Your task to perform on an android device: add a contact Image 0: 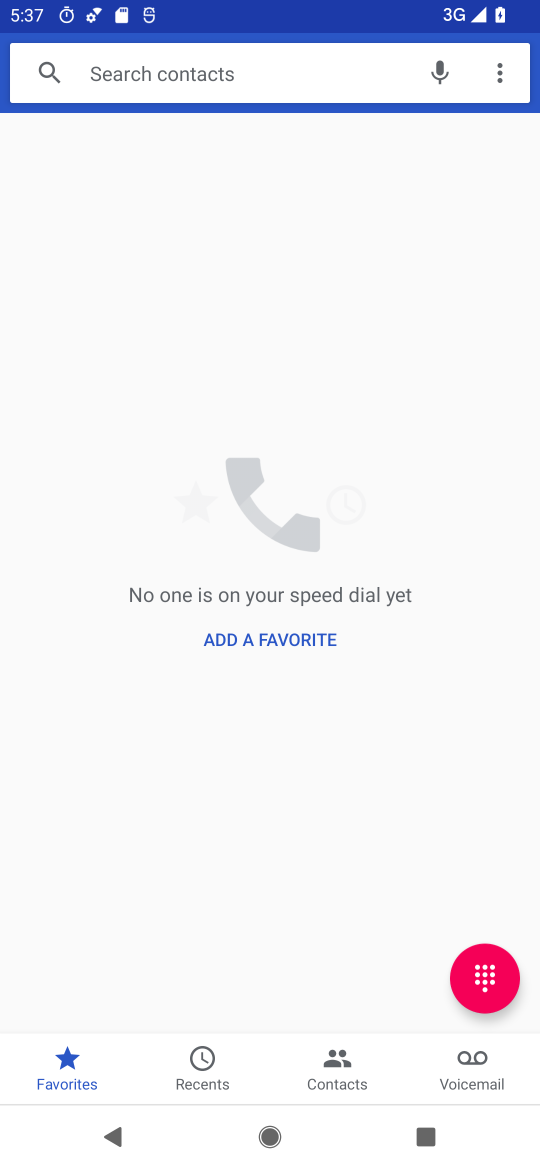
Step 0: press home button
Your task to perform on an android device: add a contact Image 1: 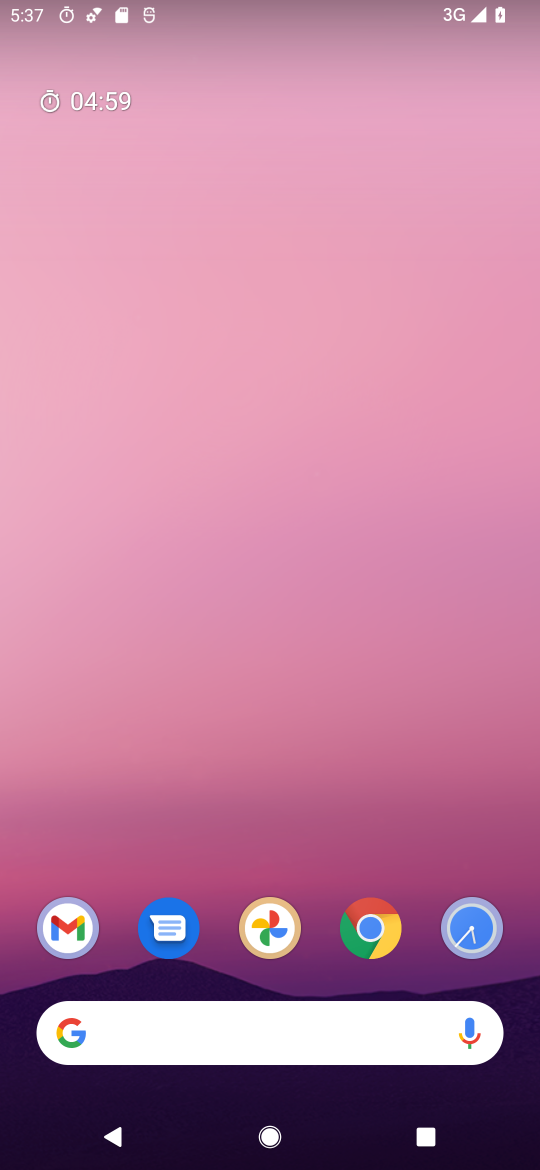
Step 1: drag from (273, 985) to (140, 56)
Your task to perform on an android device: add a contact Image 2: 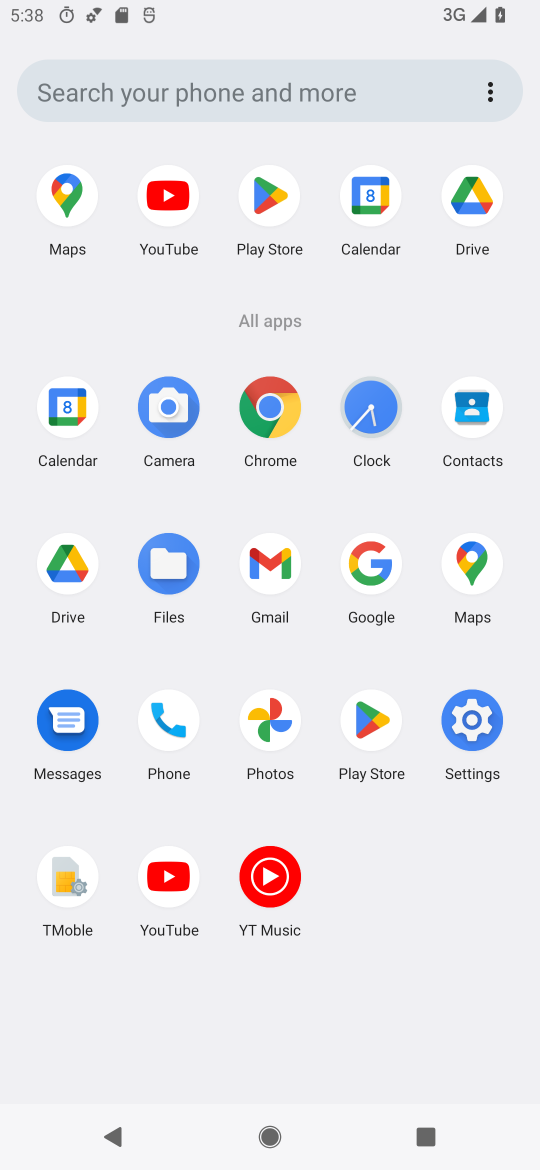
Step 2: click (447, 408)
Your task to perform on an android device: add a contact Image 3: 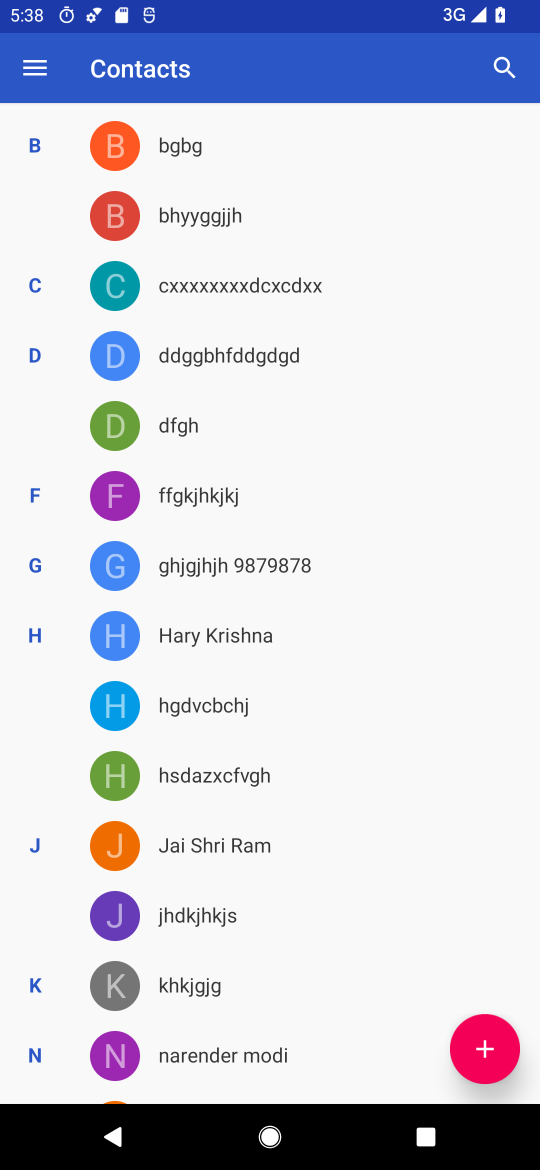
Step 3: click (502, 1028)
Your task to perform on an android device: add a contact Image 4: 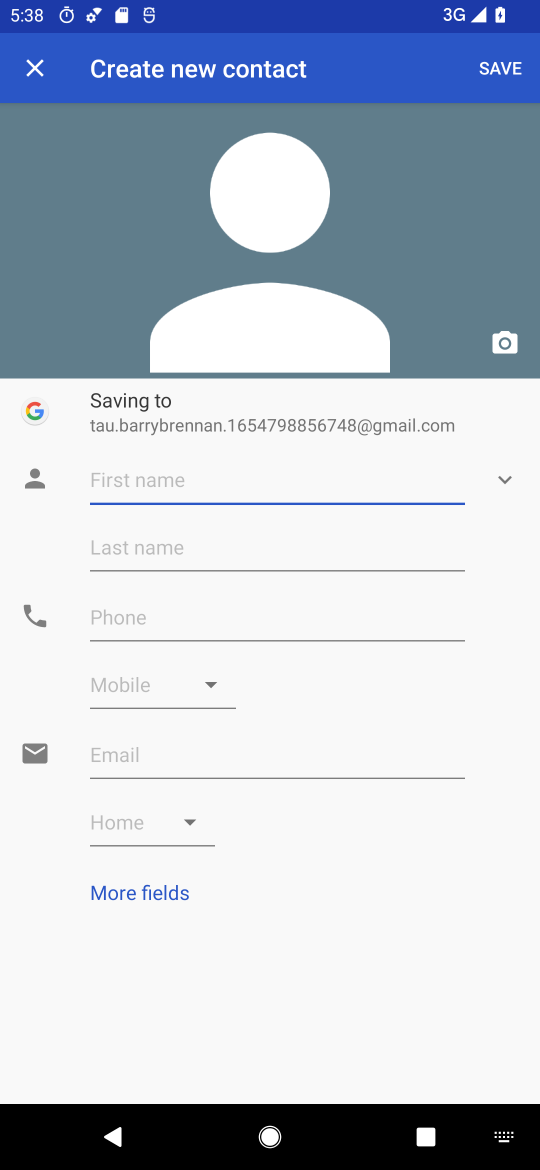
Step 4: type "thrust"
Your task to perform on an android device: add a contact Image 5: 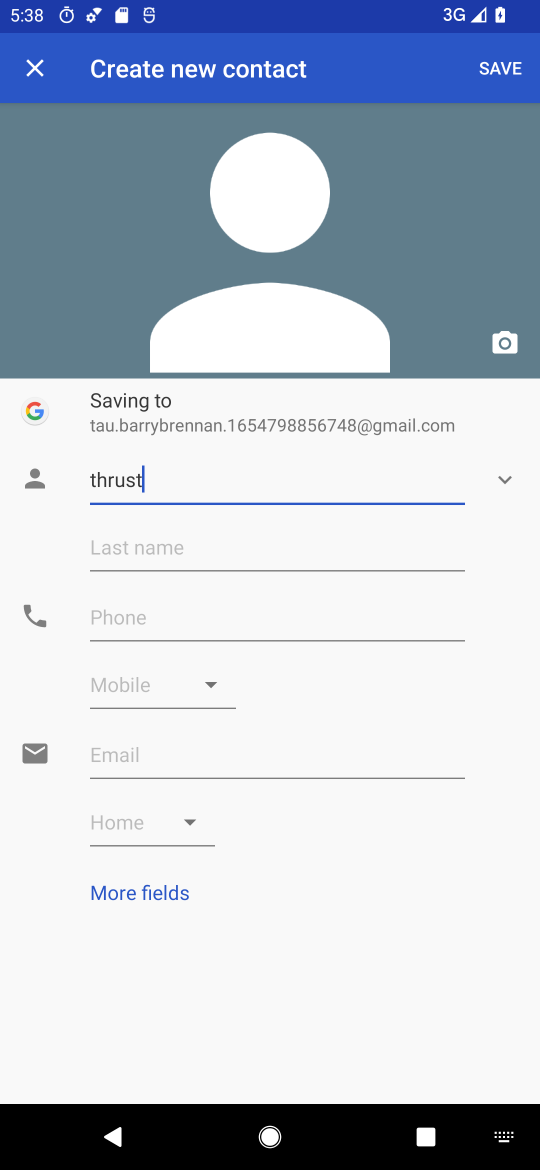
Step 5: click (510, 63)
Your task to perform on an android device: add a contact Image 6: 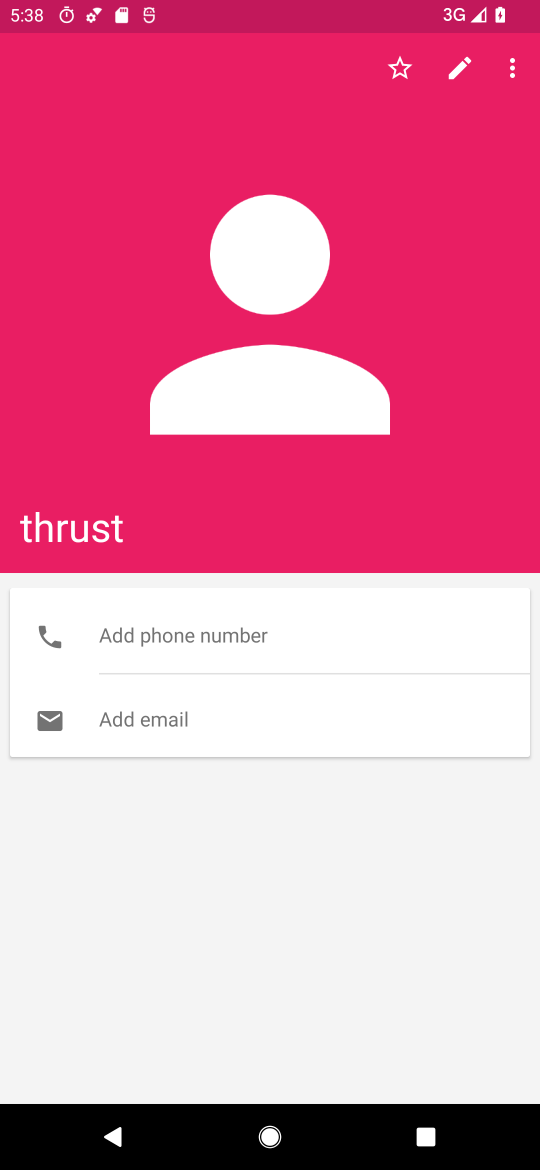
Step 6: task complete